Your task to perform on an android device: Search for sushi restaurants on Maps Image 0: 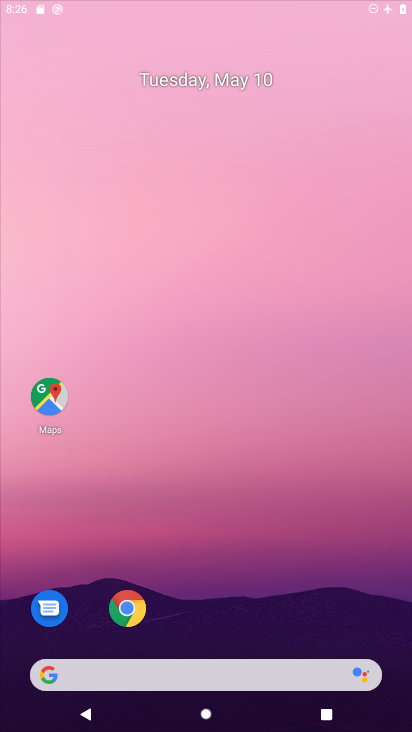
Step 0: drag from (254, 566) to (290, 236)
Your task to perform on an android device: Search for sushi restaurants on Maps Image 1: 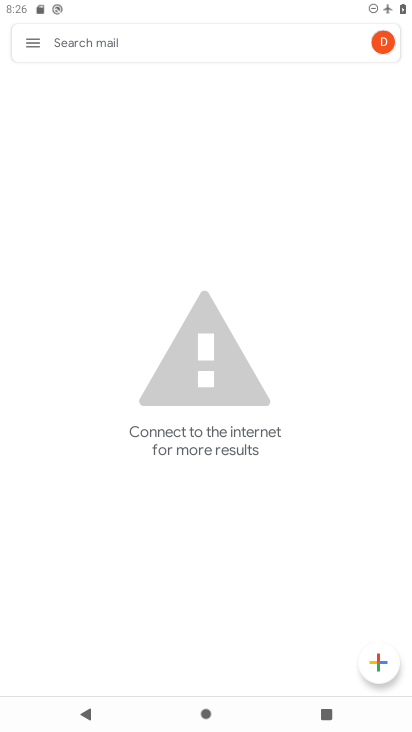
Step 1: press home button
Your task to perform on an android device: Search for sushi restaurants on Maps Image 2: 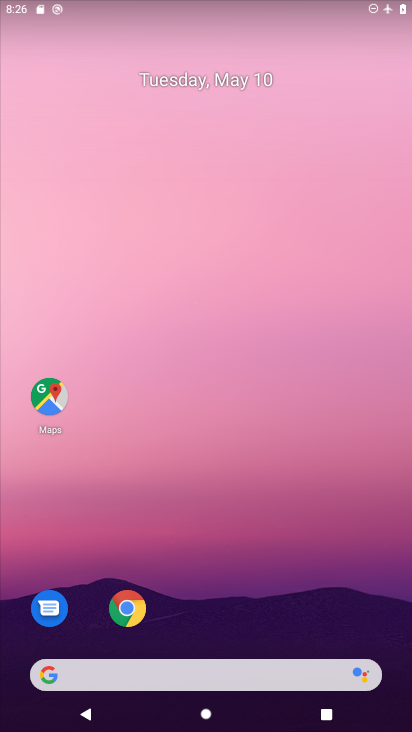
Step 2: drag from (223, 571) to (253, 315)
Your task to perform on an android device: Search for sushi restaurants on Maps Image 3: 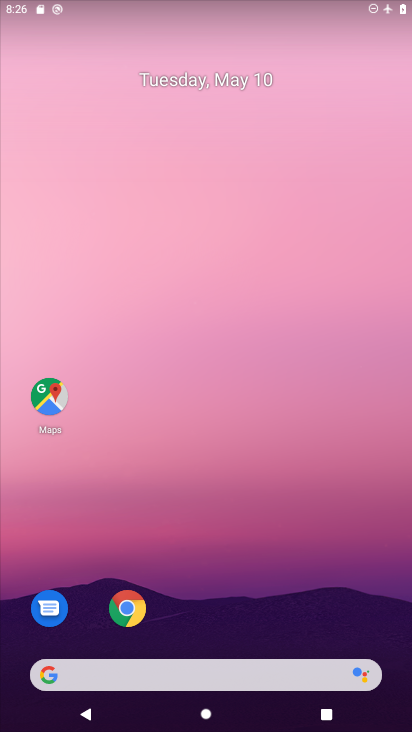
Step 3: drag from (228, 573) to (258, 249)
Your task to perform on an android device: Search for sushi restaurants on Maps Image 4: 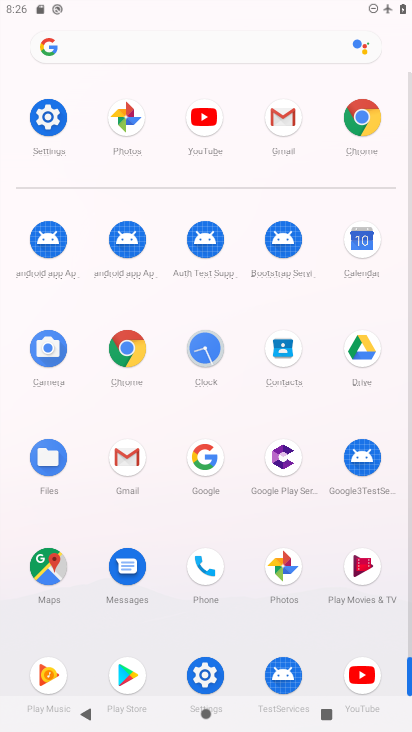
Step 4: click (46, 565)
Your task to perform on an android device: Search for sushi restaurants on Maps Image 5: 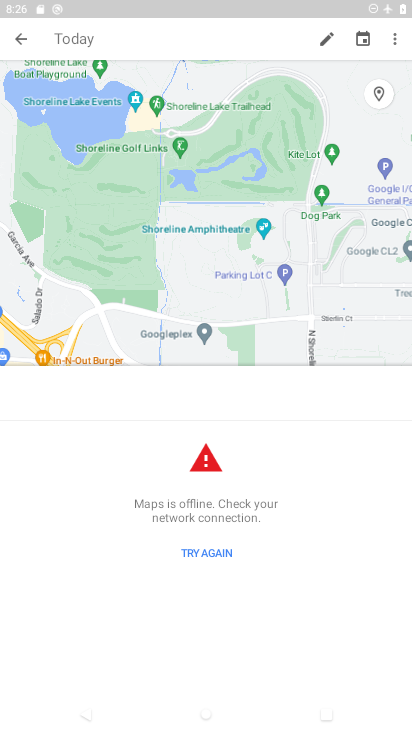
Step 5: click (18, 33)
Your task to perform on an android device: Search for sushi restaurants on Maps Image 6: 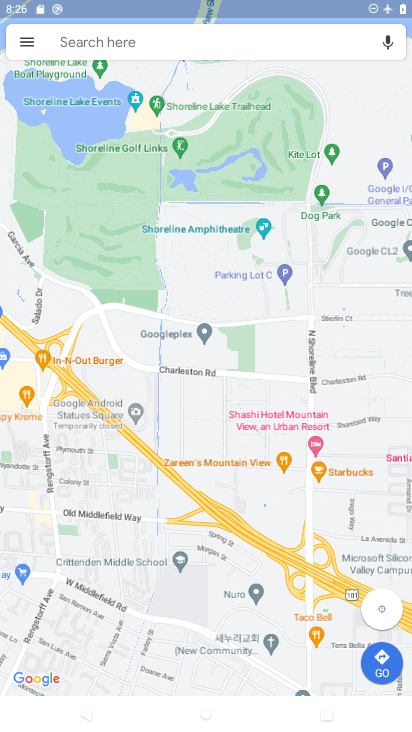
Step 6: click (140, 28)
Your task to perform on an android device: Search for sushi restaurants on Maps Image 7: 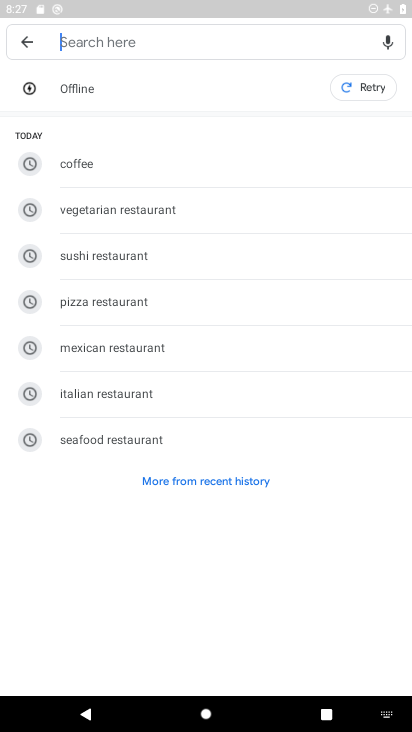
Step 7: click (117, 250)
Your task to perform on an android device: Search for sushi restaurants on Maps Image 8: 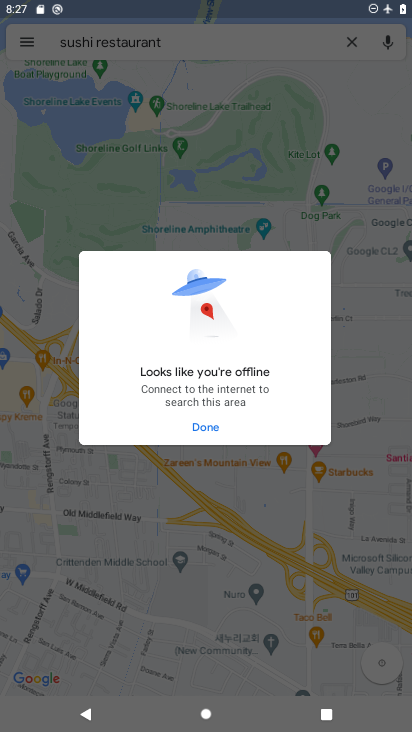
Step 8: task complete